Your task to perform on an android device: turn on data saver in the chrome app Image 0: 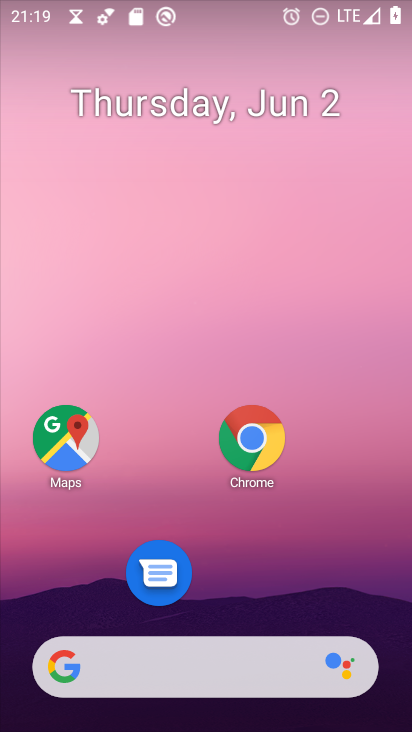
Step 0: press home button
Your task to perform on an android device: turn on data saver in the chrome app Image 1: 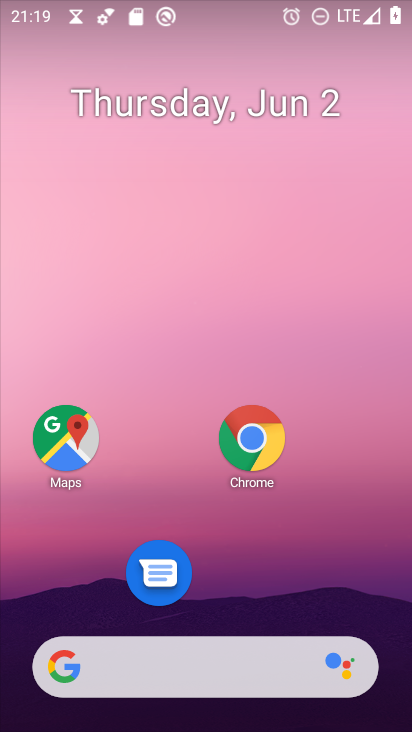
Step 1: click (257, 456)
Your task to perform on an android device: turn on data saver in the chrome app Image 2: 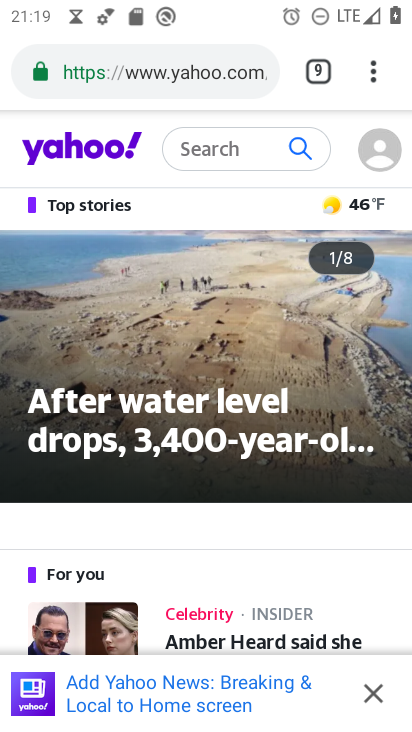
Step 2: drag from (375, 74) to (191, 579)
Your task to perform on an android device: turn on data saver in the chrome app Image 3: 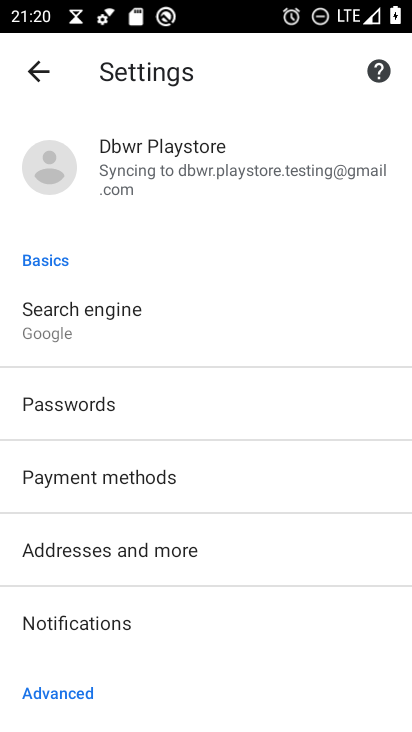
Step 3: drag from (178, 661) to (302, 176)
Your task to perform on an android device: turn on data saver in the chrome app Image 4: 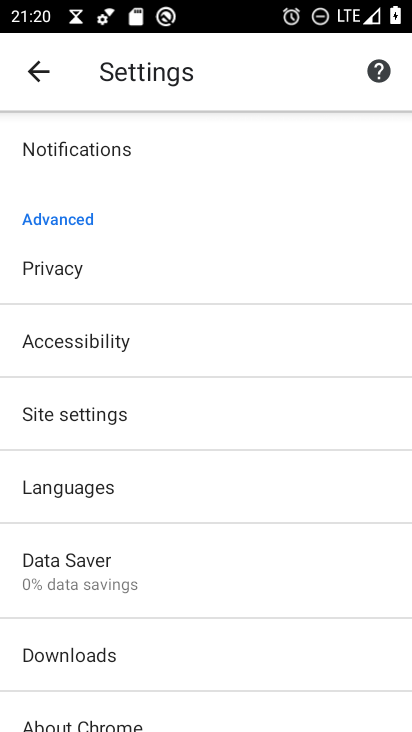
Step 4: click (107, 580)
Your task to perform on an android device: turn on data saver in the chrome app Image 5: 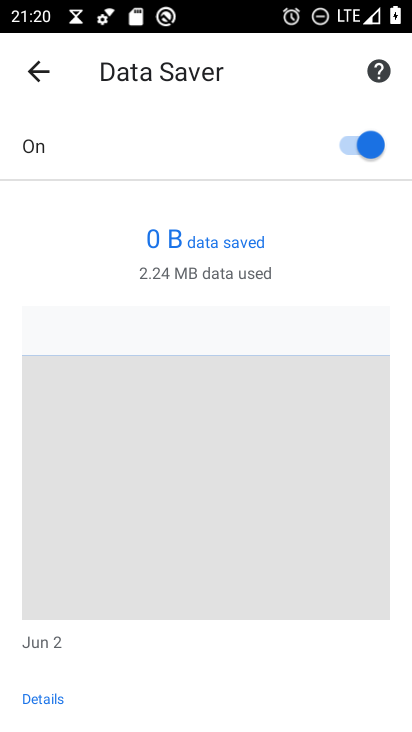
Step 5: task complete